Your task to perform on an android device: Toggle the flashlight Image 0: 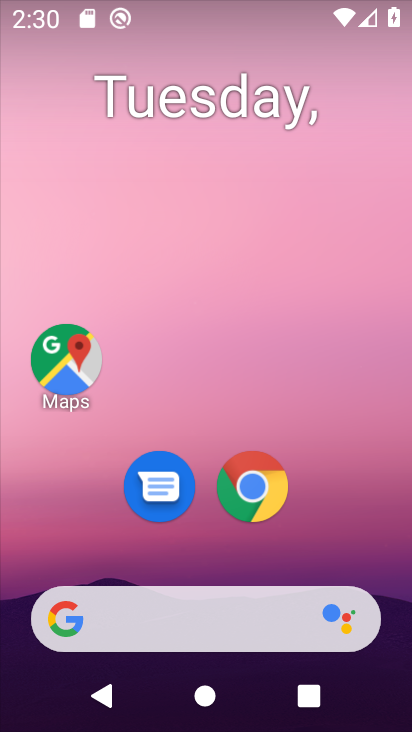
Step 0: press home button
Your task to perform on an android device: Toggle the flashlight Image 1: 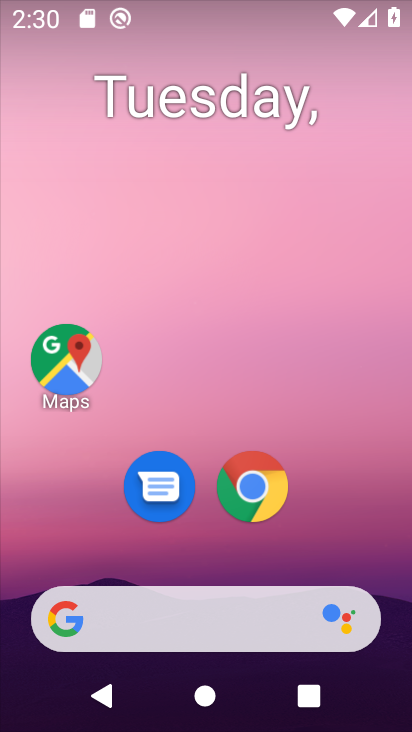
Step 1: drag from (204, 564) to (239, 39)
Your task to perform on an android device: Toggle the flashlight Image 2: 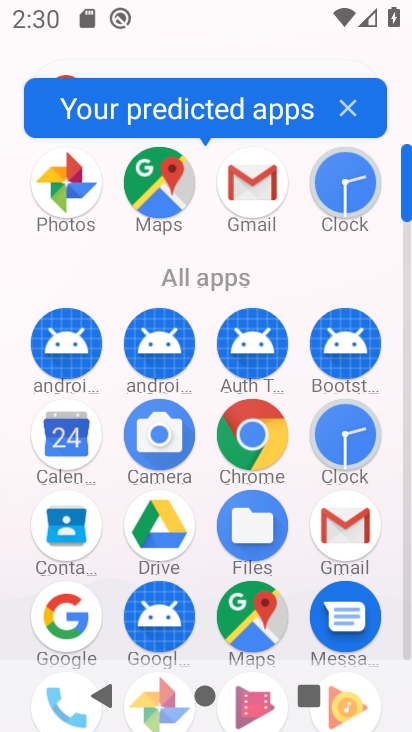
Step 2: drag from (205, 575) to (221, 102)
Your task to perform on an android device: Toggle the flashlight Image 3: 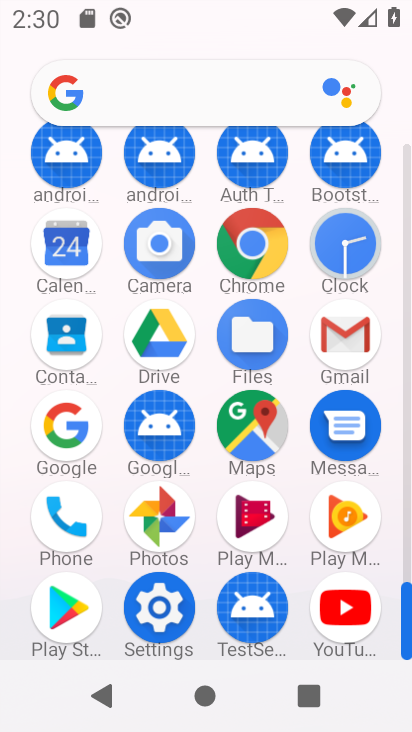
Step 3: click (155, 599)
Your task to perform on an android device: Toggle the flashlight Image 4: 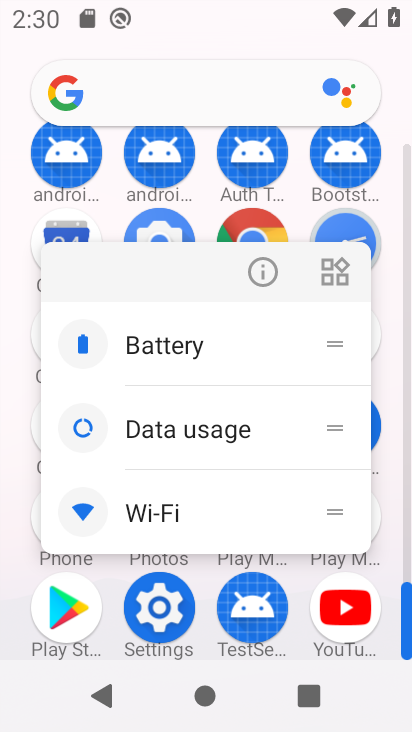
Step 4: click (157, 600)
Your task to perform on an android device: Toggle the flashlight Image 5: 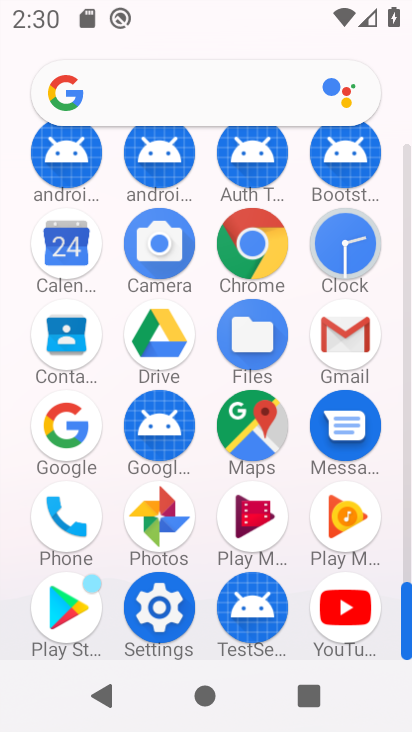
Step 5: click (157, 600)
Your task to perform on an android device: Toggle the flashlight Image 6: 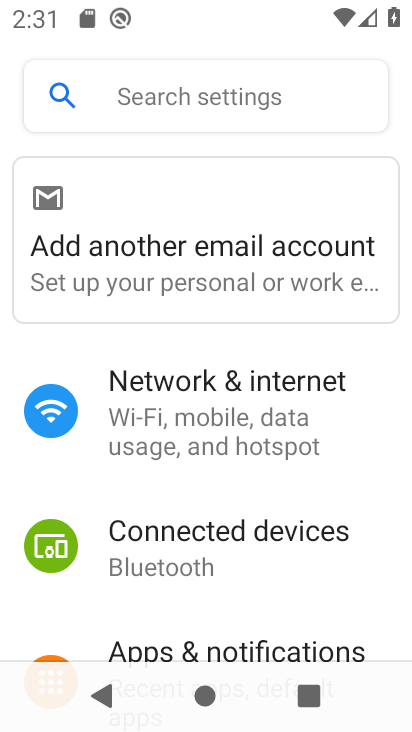
Step 6: click (159, 94)
Your task to perform on an android device: Toggle the flashlight Image 7: 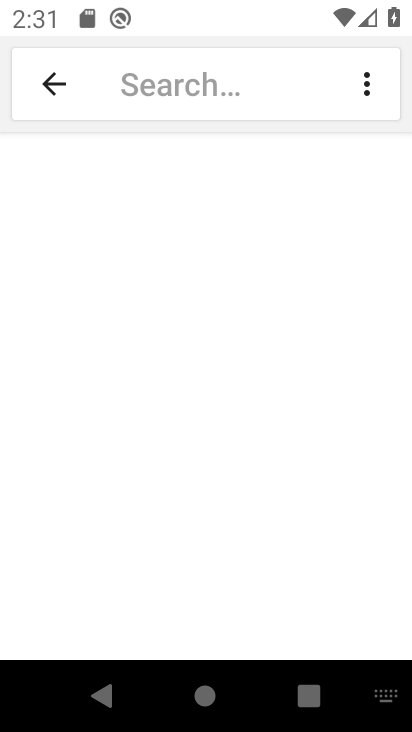
Step 7: type "flashlight"
Your task to perform on an android device: Toggle the flashlight Image 8: 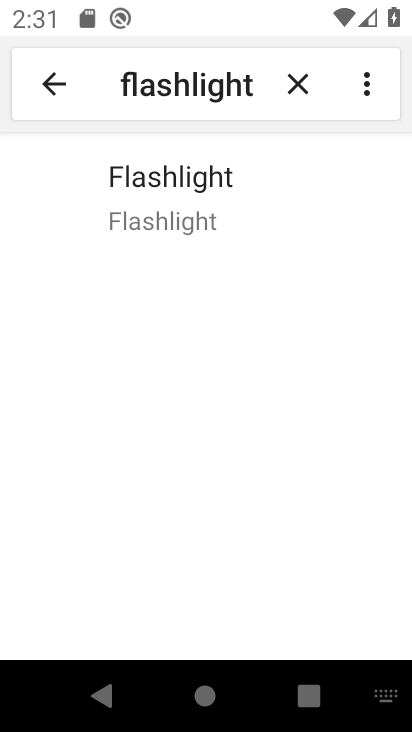
Step 8: click (227, 194)
Your task to perform on an android device: Toggle the flashlight Image 9: 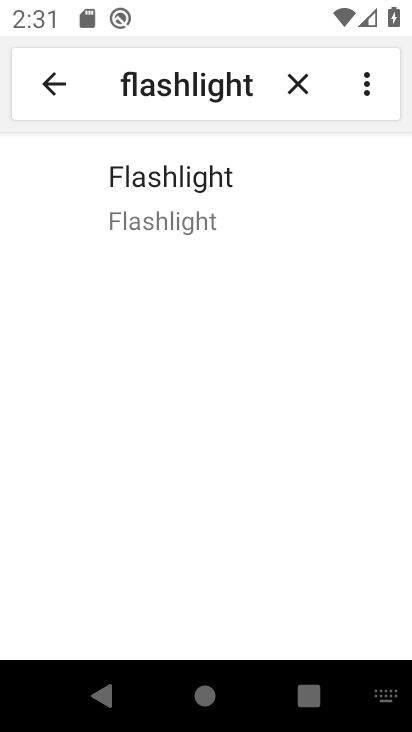
Step 9: task complete